Your task to perform on an android device: Turn on the flashlight Image 0: 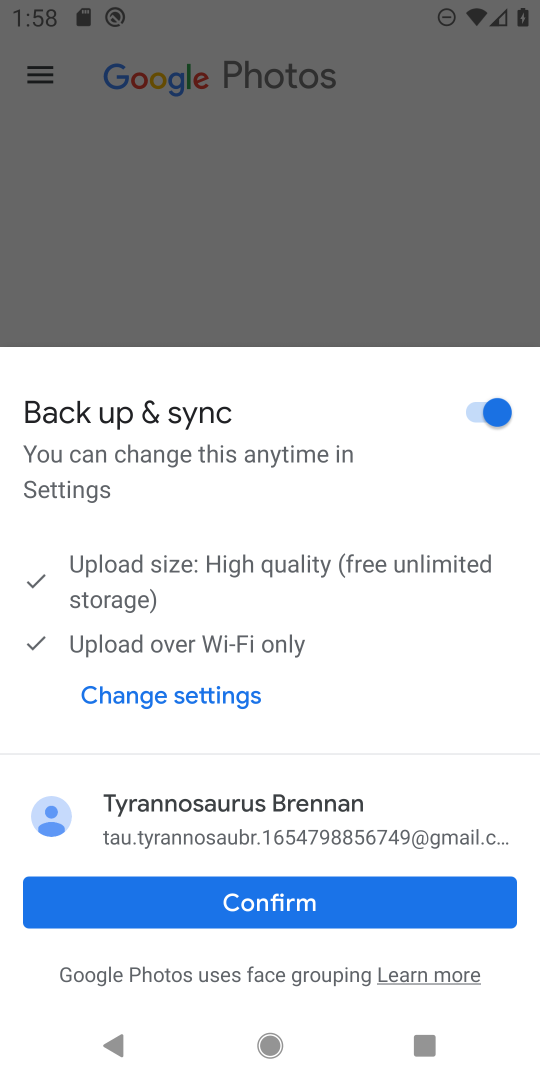
Step 0: click (266, 906)
Your task to perform on an android device: Turn on the flashlight Image 1: 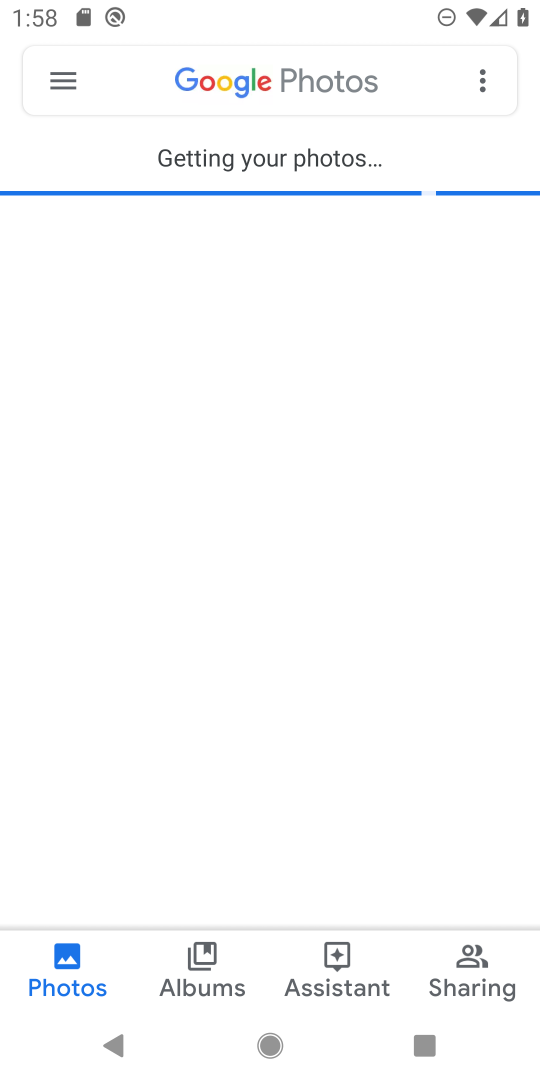
Step 1: task complete